Your task to perform on an android device: uninstall "Upside-Cash back on gas & food" Image 0: 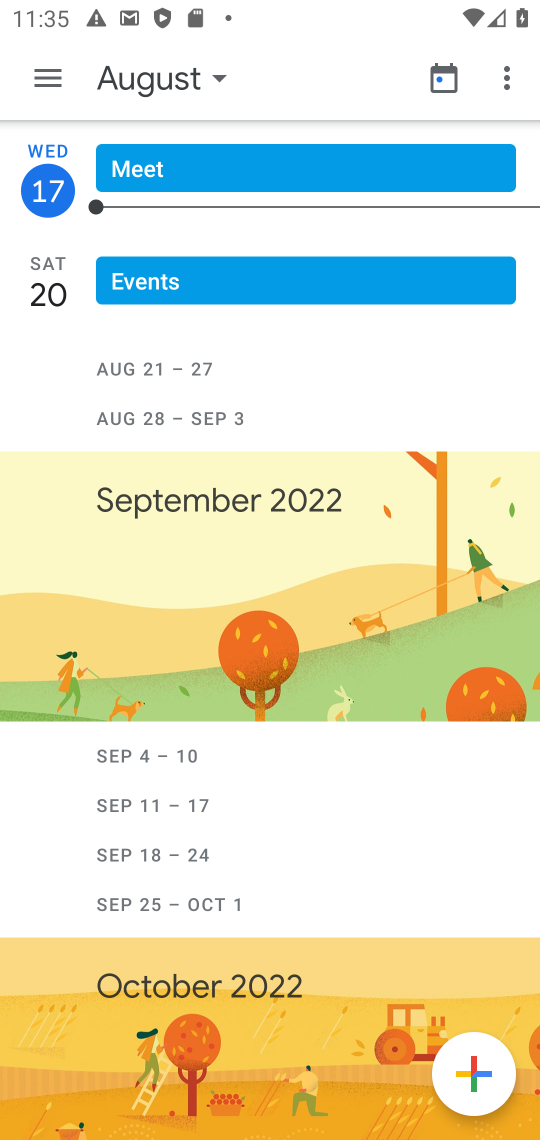
Step 0: press home button
Your task to perform on an android device: uninstall "Upside-Cash back on gas & food" Image 1: 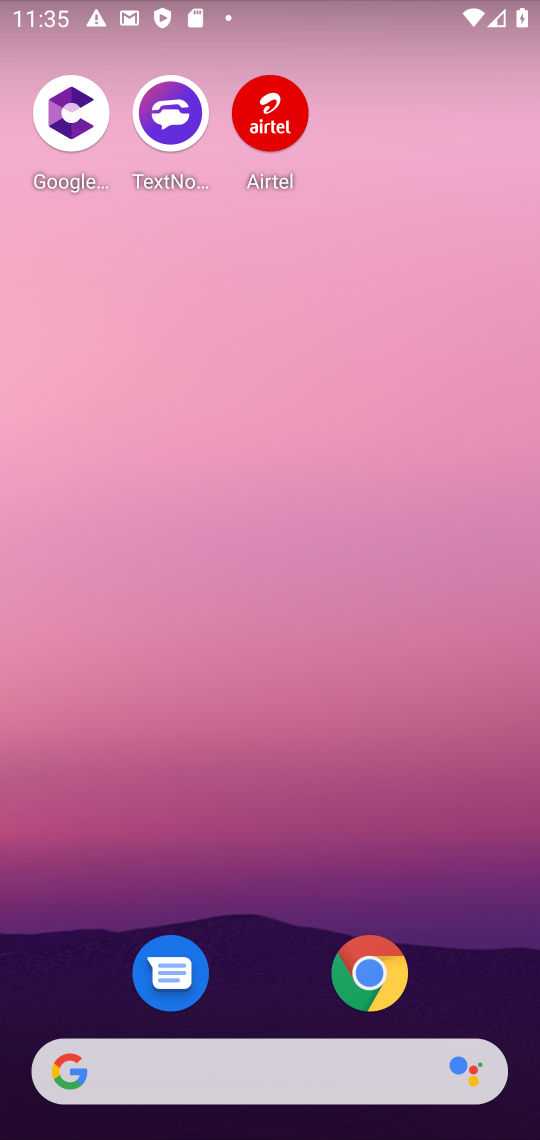
Step 1: drag from (269, 690) to (269, 71)
Your task to perform on an android device: uninstall "Upside-Cash back on gas & food" Image 2: 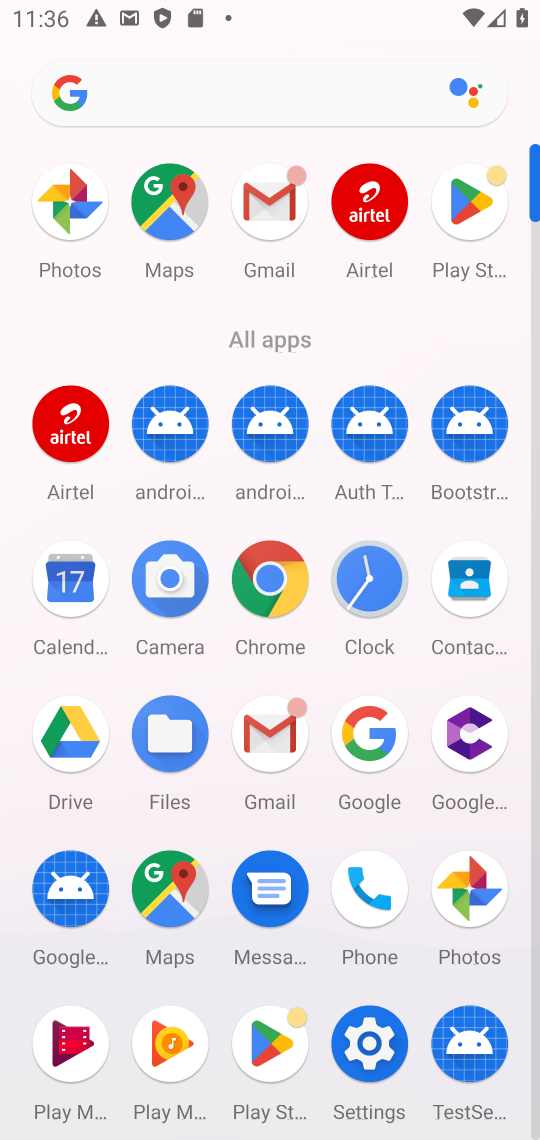
Step 2: click (263, 1051)
Your task to perform on an android device: uninstall "Upside-Cash back on gas & food" Image 3: 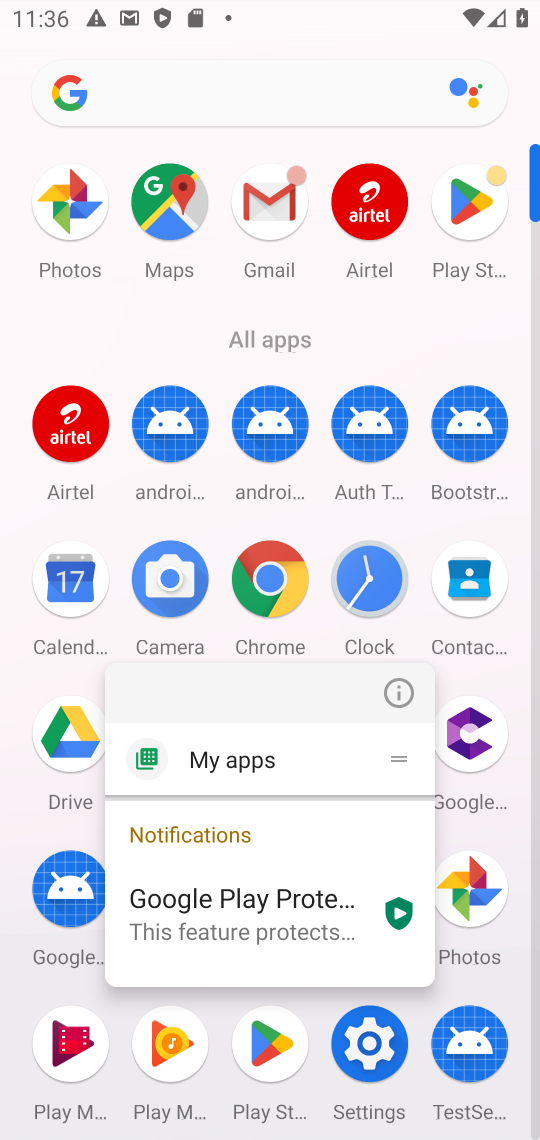
Step 3: click (293, 1045)
Your task to perform on an android device: uninstall "Upside-Cash back on gas & food" Image 4: 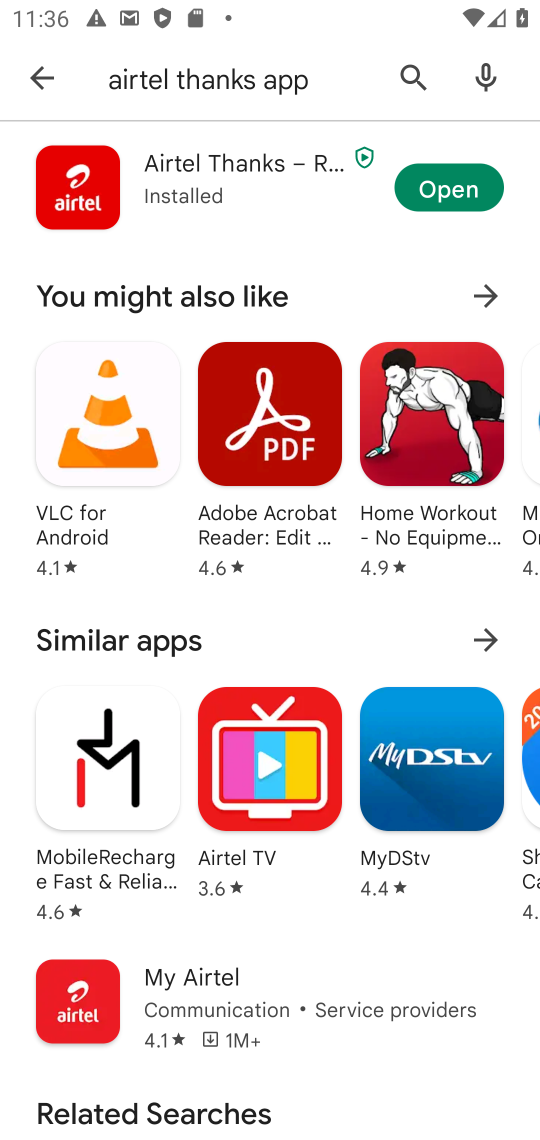
Step 4: click (416, 65)
Your task to perform on an android device: uninstall "Upside-Cash back on gas & food" Image 5: 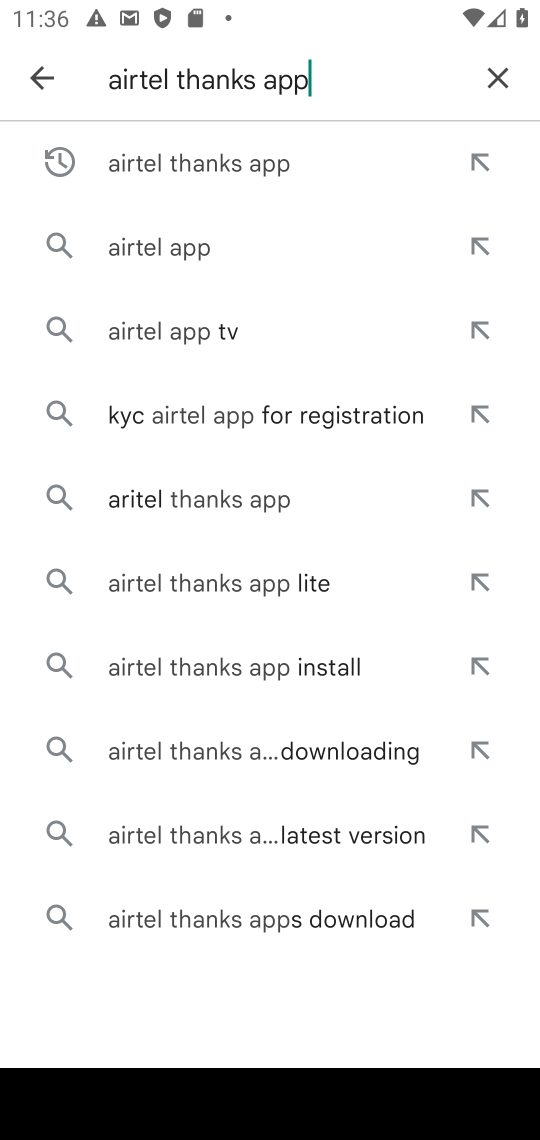
Step 5: click (493, 68)
Your task to perform on an android device: uninstall "Upside-Cash back on gas & food" Image 6: 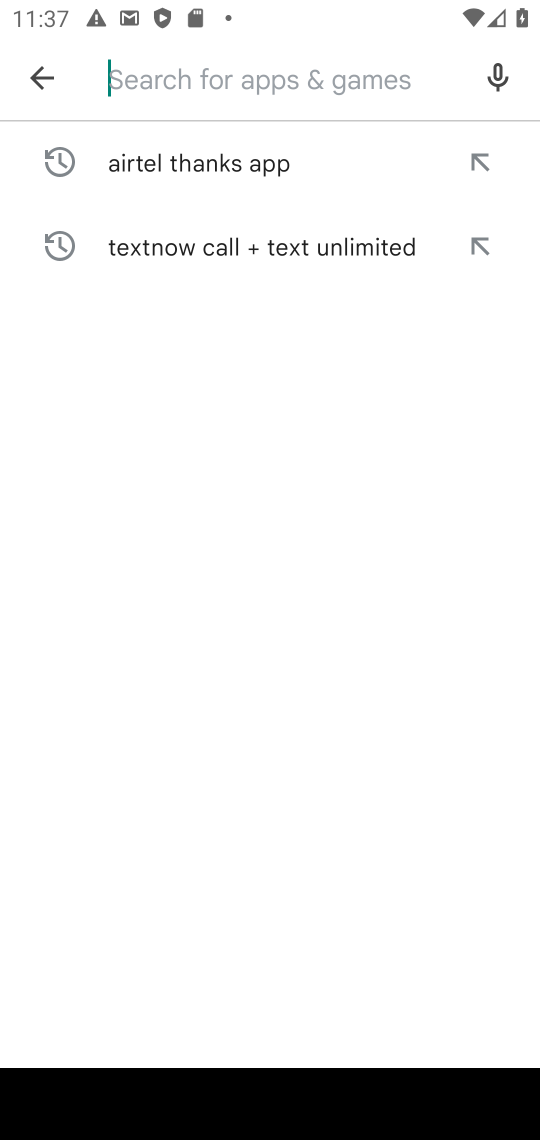
Step 6: type "Airtel Thanks"
Your task to perform on an android device: uninstall "Upside-Cash back on gas & food" Image 7: 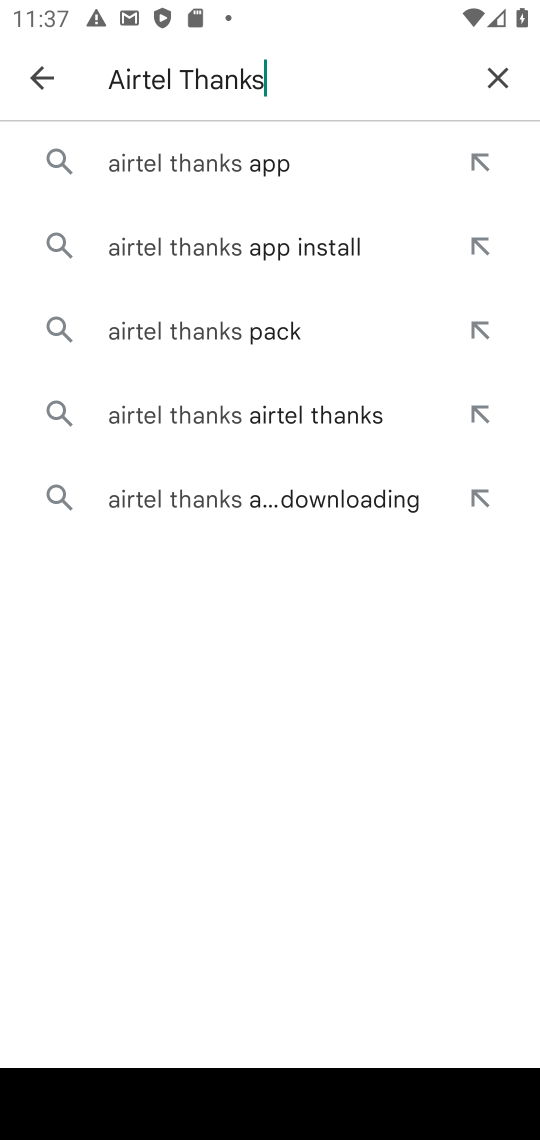
Step 7: click (232, 160)
Your task to perform on an android device: uninstall "Upside-Cash back on gas & food" Image 8: 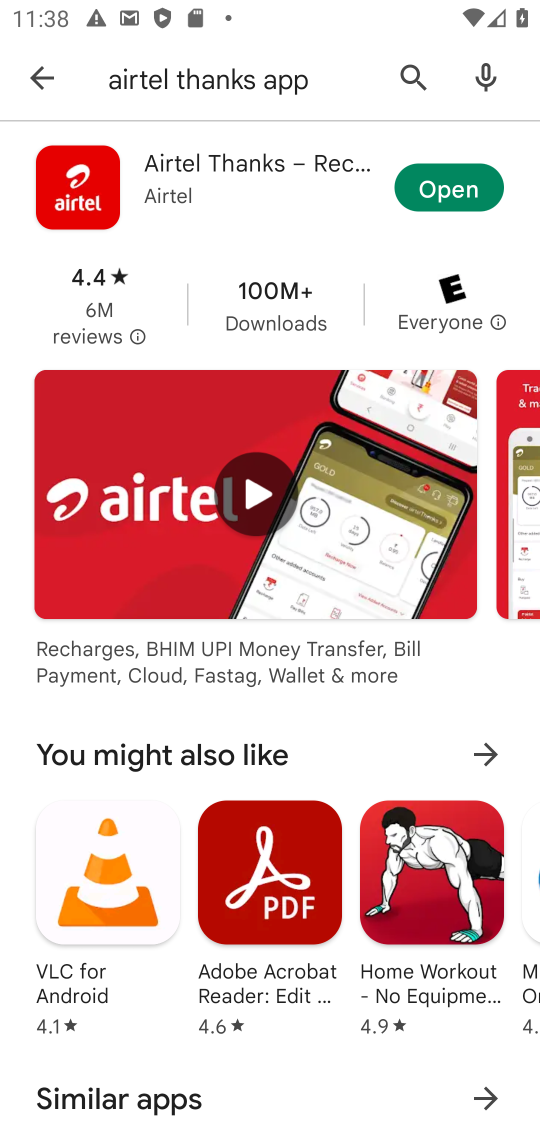
Step 8: click (413, 73)
Your task to perform on an android device: uninstall "Upside-Cash back on gas & food" Image 9: 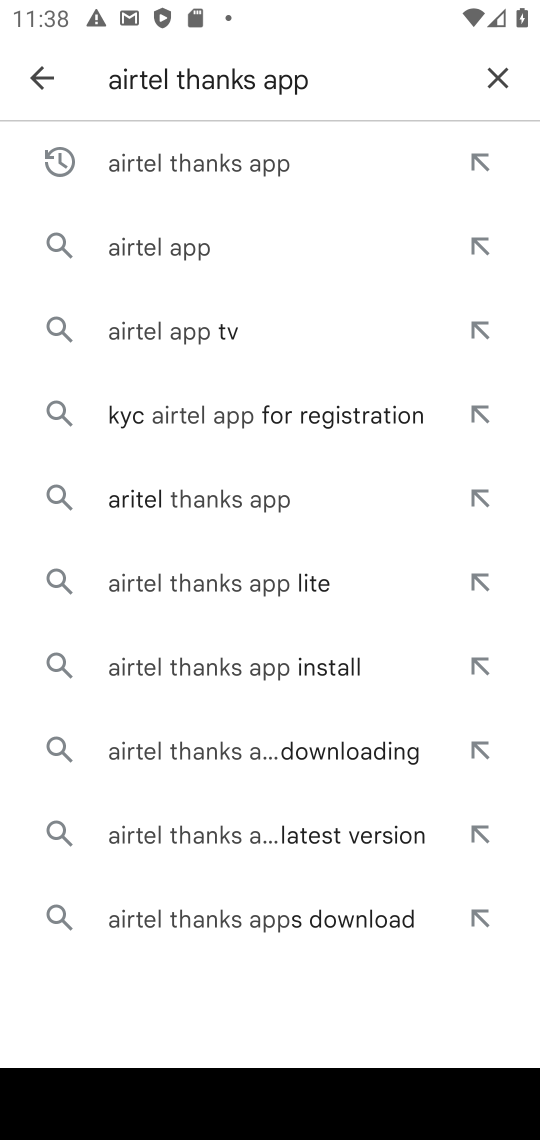
Step 9: click (496, 78)
Your task to perform on an android device: uninstall "Upside-Cash back on gas & food" Image 10: 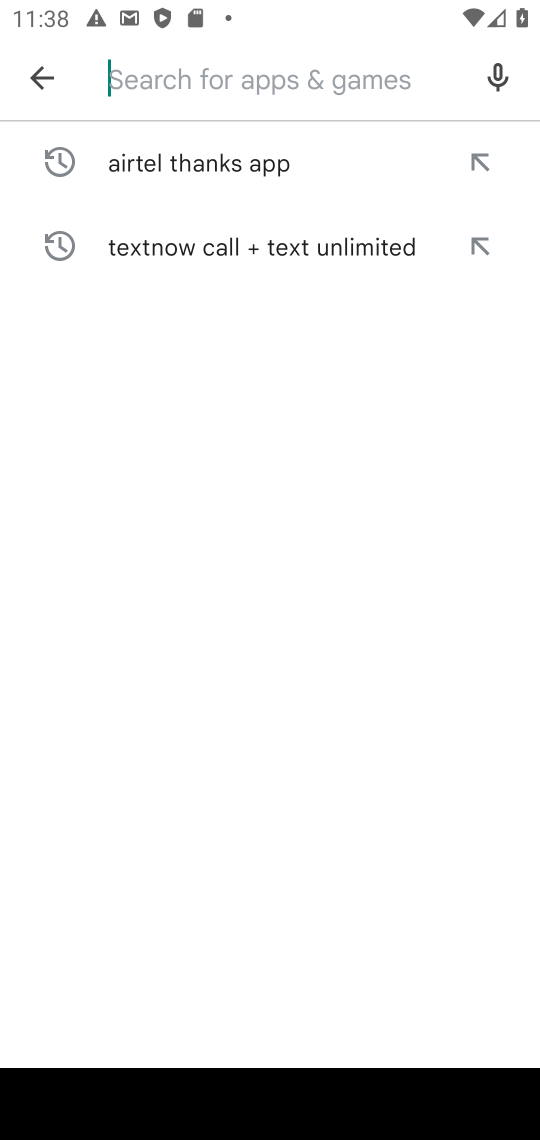
Step 10: type "Upside-Cash back on gas & food"
Your task to perform on an android device: uninstall "Upside-Cash back on gas & food" Image 11: 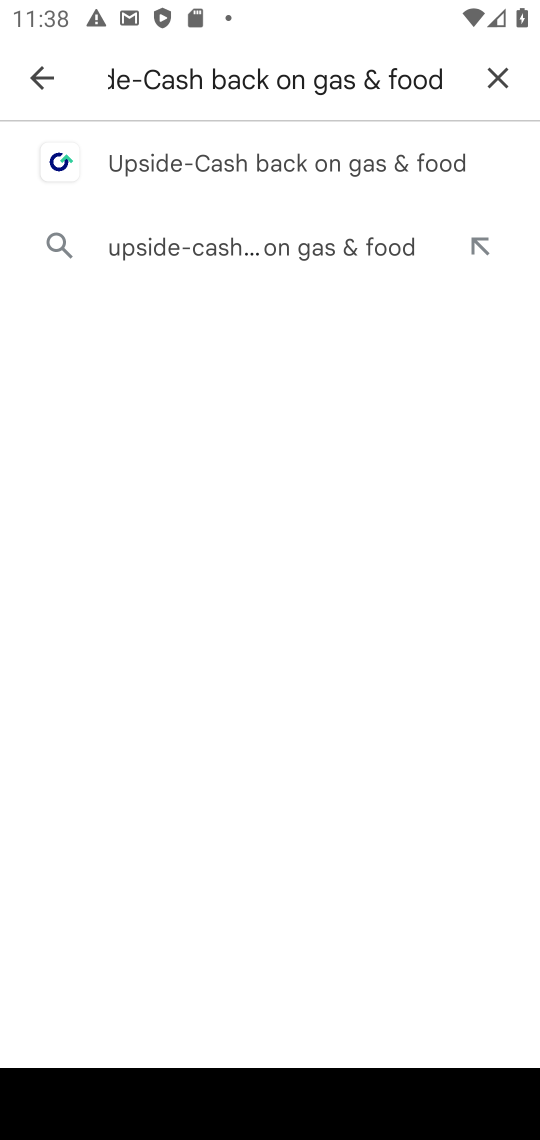
Step 11: click (194, 154)
Your task to perform on an android device: uninstall "Upside-Cash back on gas & food" Image 12: 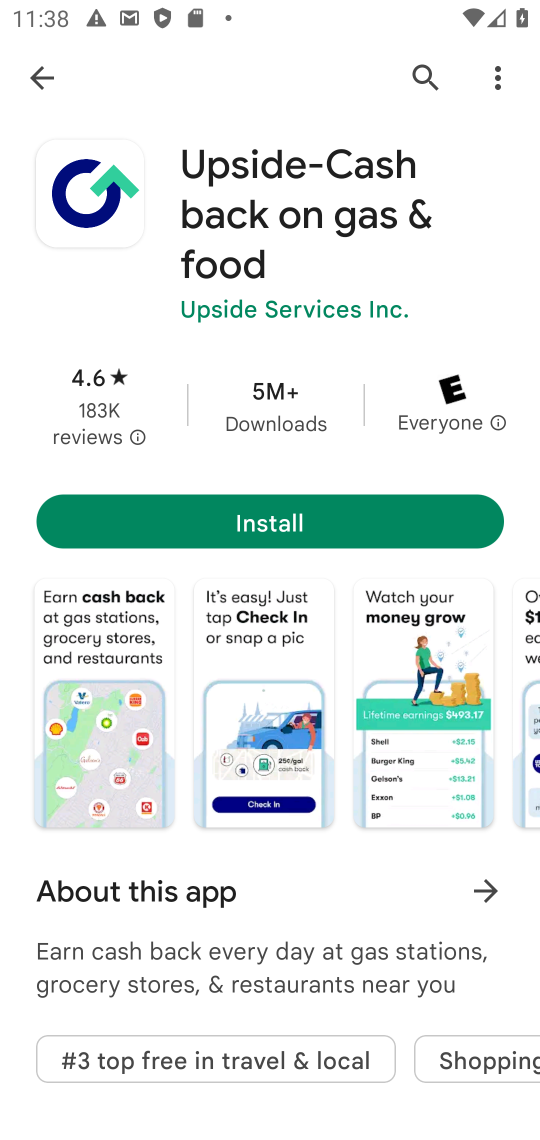
Step 12: task complete